Your task to perform on an android device: Open notification settings Image 0: 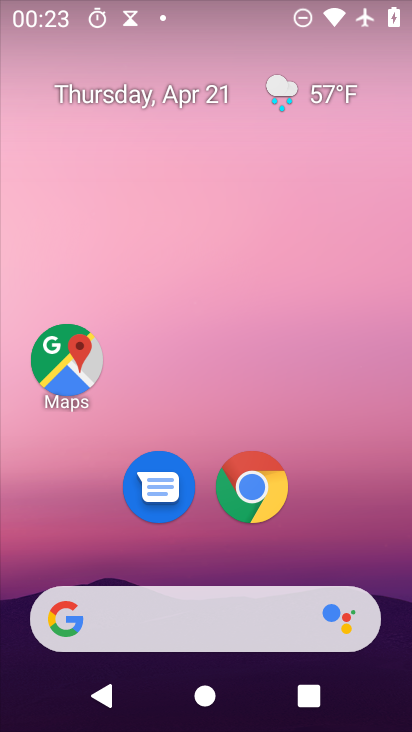
Step 0: drag from (366, 505) to (148, 15)
Your task to perform on an android device: Open notification settings Image 1: 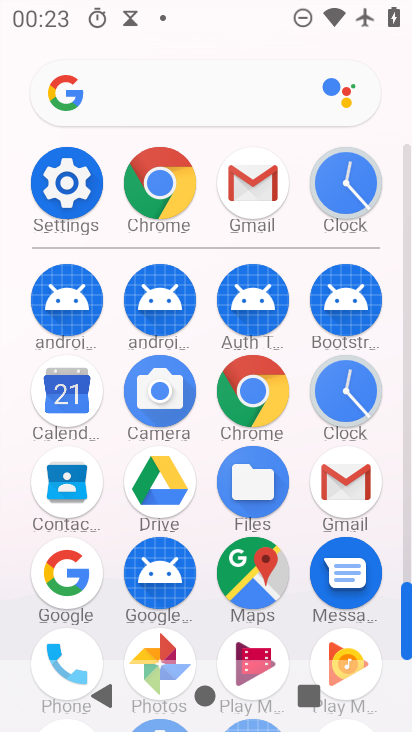
Step 1: drag from (23, 483) to (15, 212)
Your task to perform on an android device: Open notification settings Image 2: 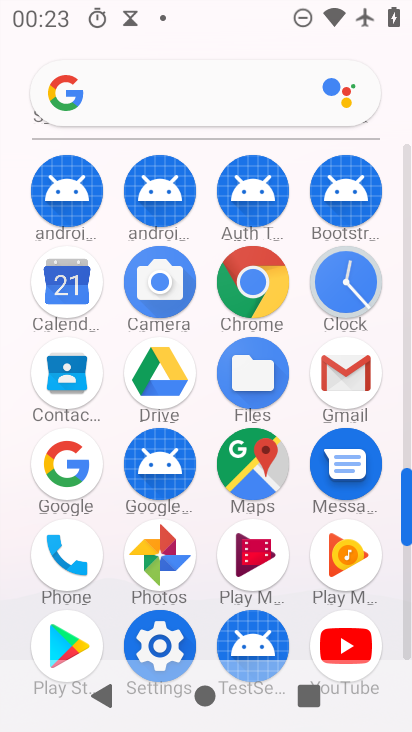
Step 2: click (157, 645)
Your task to perform on an android device: Open notification settings Image 3: 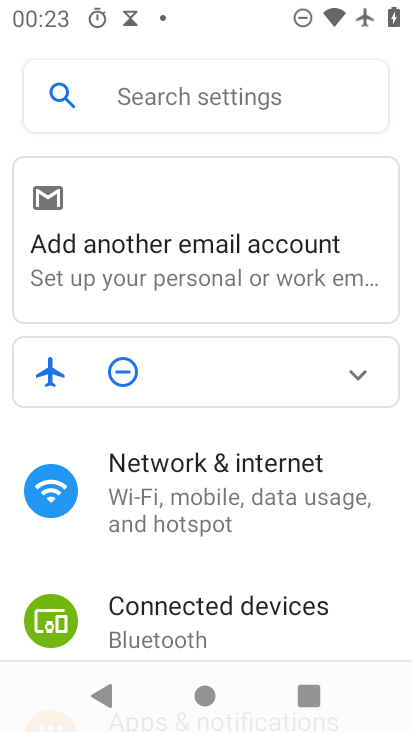
Step 3: drag from (298, 573) to (239, 165)
Your task to perform on an android device: Open notification settings Image 4: 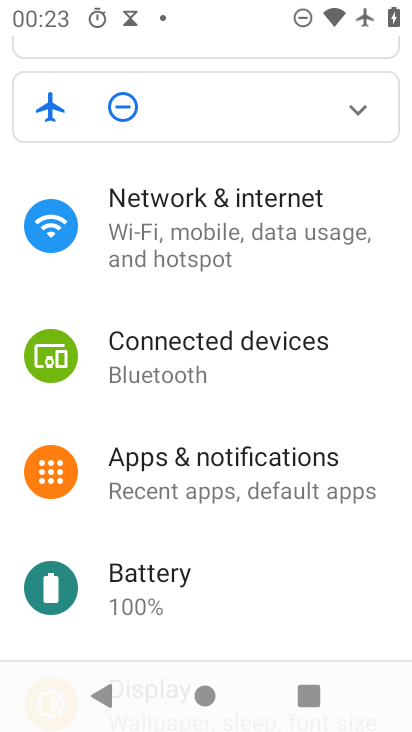
Step 4: click (237, 478)
Your task to perform on an android device: Open notification settings Image 5: 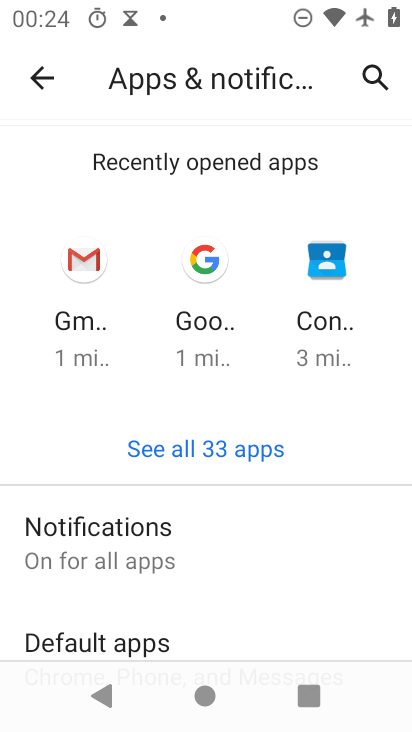
Step 5: drag from (288, 567) to (273, 197)
Your task to perform on an android device: Open notification settings Image 6: 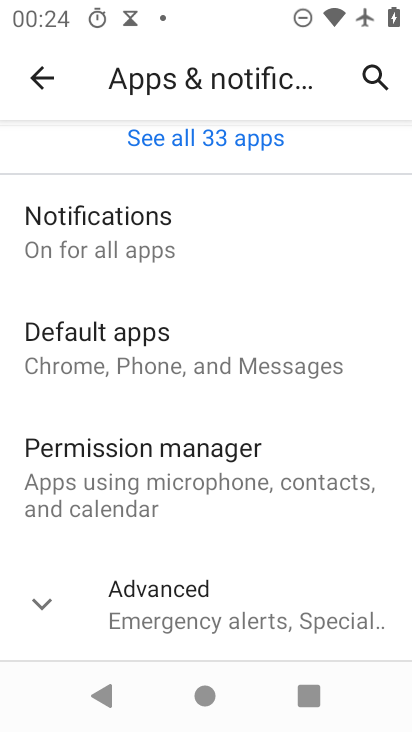
Step 6: click (161, 211)
Your task to perform on an android device: Open notification settings Image 7: 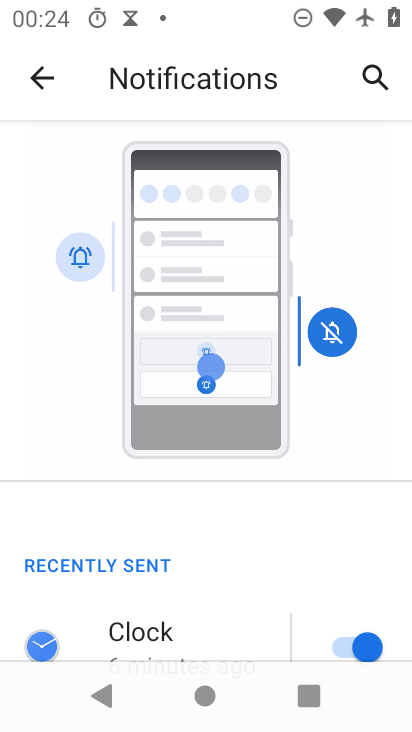
Step 7: drag from (209, 532) to (221, 152)
Your task to perform on an android device: Open notification settings Image 8: 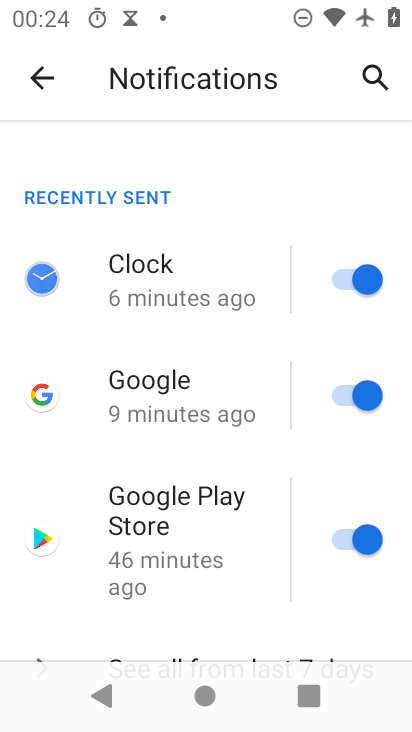
Step 8: drag from (228, 524) to (228, 184)
Your task to perform on an android device: Open notification settings Image 9: 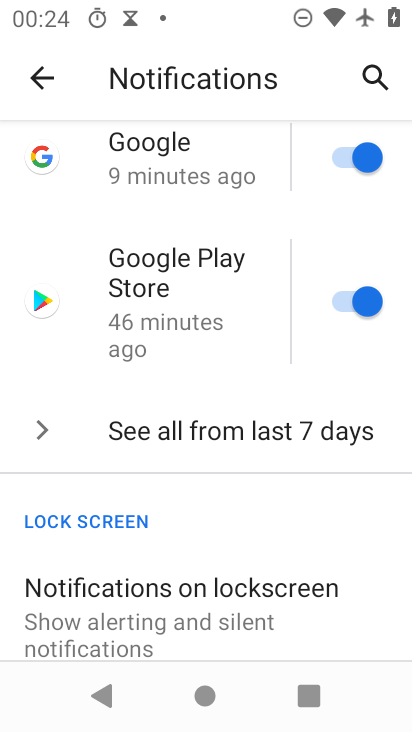
Step 9: drag from (191, 576) to (195, 206)
Your task to perform on an android device: Open notification settings Image 10: 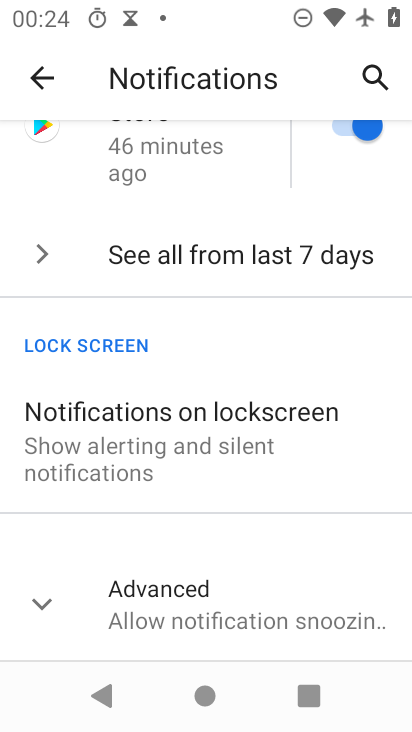
Step 10: drag from (260, 552) to (226, 174)
Your task to perform on an android device: Open notification settings Image 11: 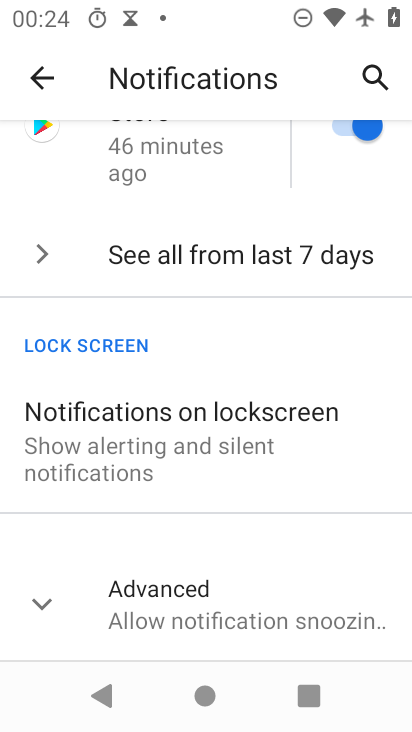
Step 11: click (56, 600)
Your task to perform on an android device: Open notification settings Image 12: 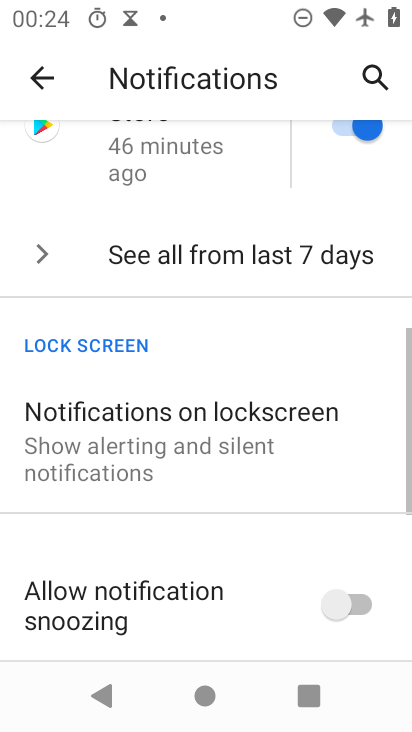
Step 12: task complete